Your task to perform on an android device: uninstall "McDonald's" Image 0: 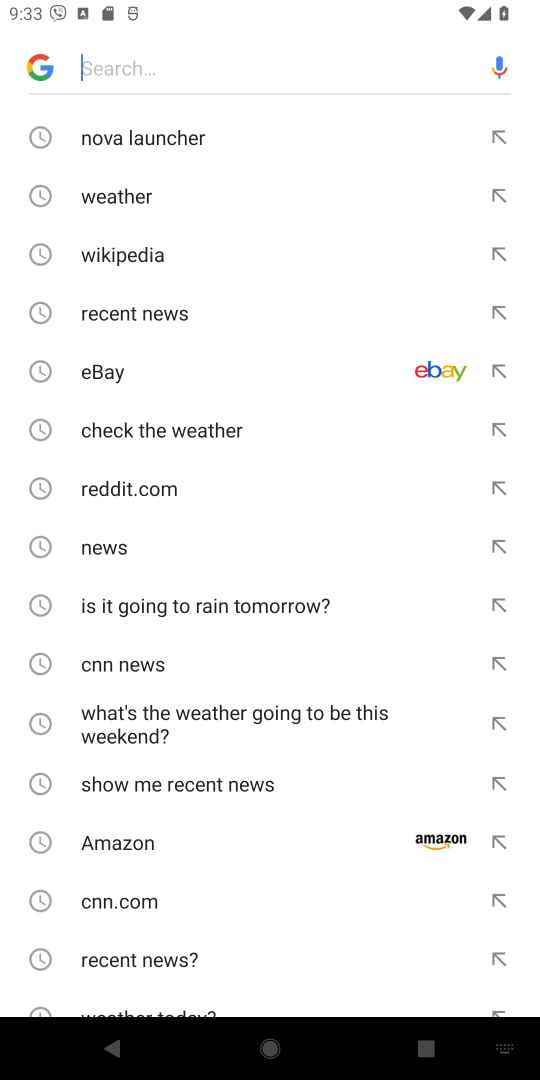
Step 0: press home button
Your task to perform on an android device: uninstall "McDonald's" Image 1: 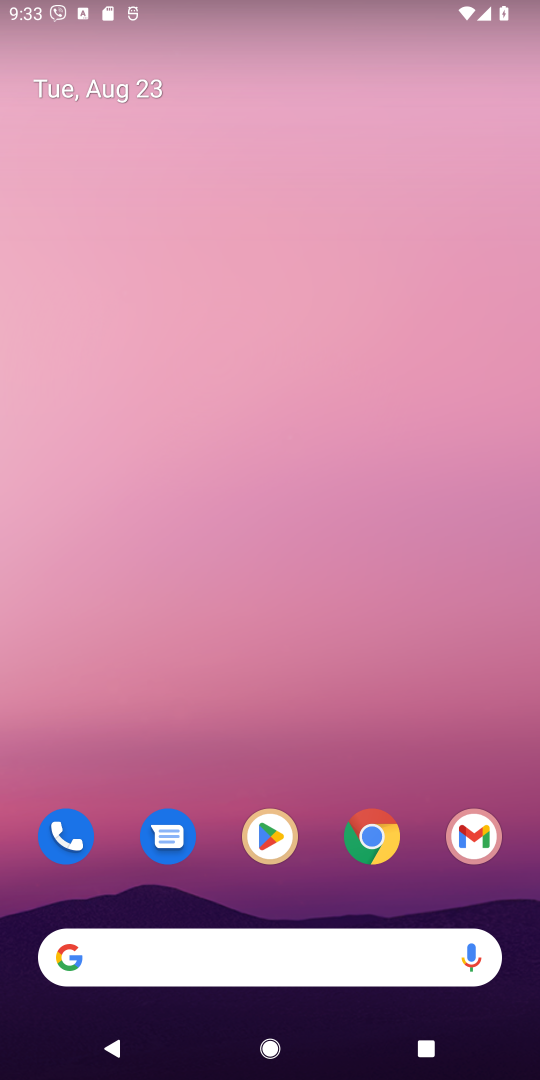
Step 1: click (273, 842)
Your task to perform on an android device: uninstall "McDonald's" Image 2: 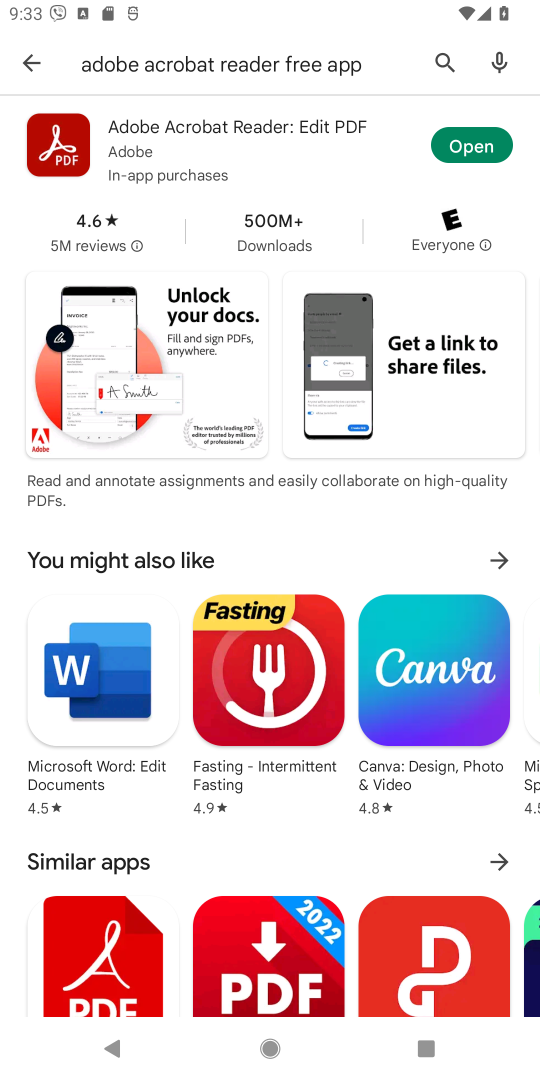
Step 2: click (453, 65)
Your task to perform on an android device: uninstall "McDonald's" Image 3: 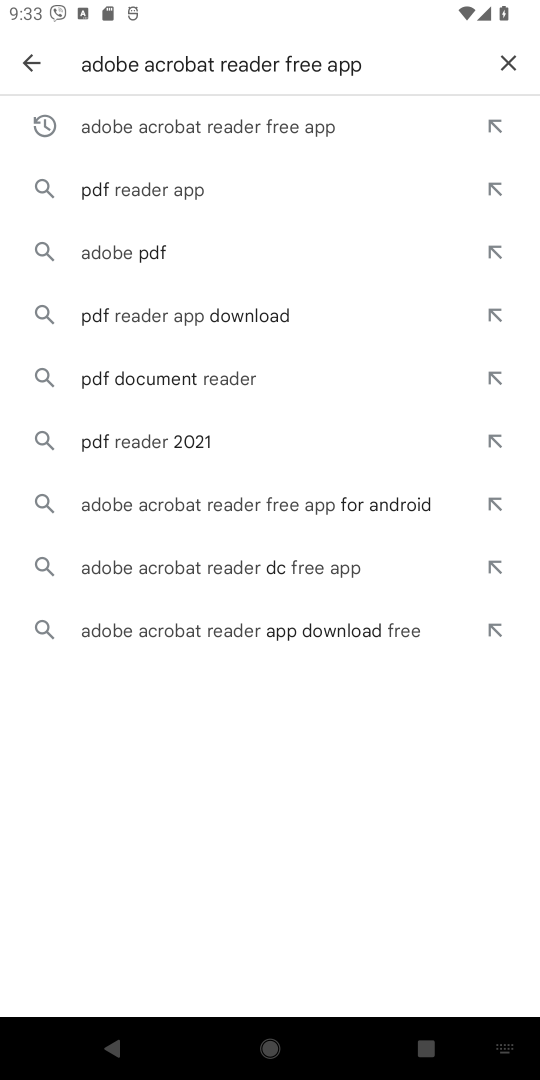
Step 3: click (502, 64)
Your task to perform on an android device: uninstall "McDonald's" Image 4: 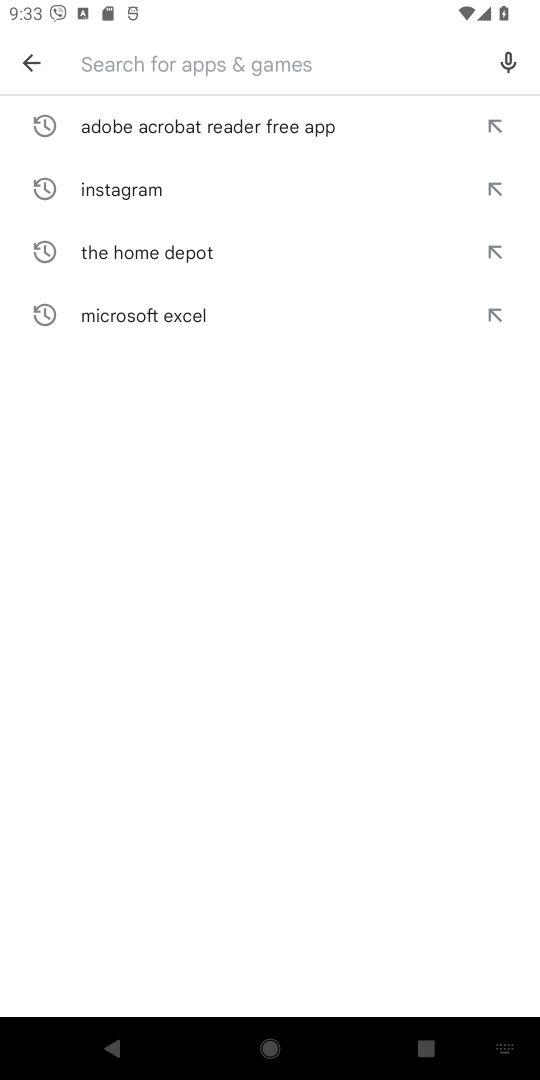
Step 4: type "McDonald's"
Your task to perform on an android device: uninstall "McDonald's" Image 5: 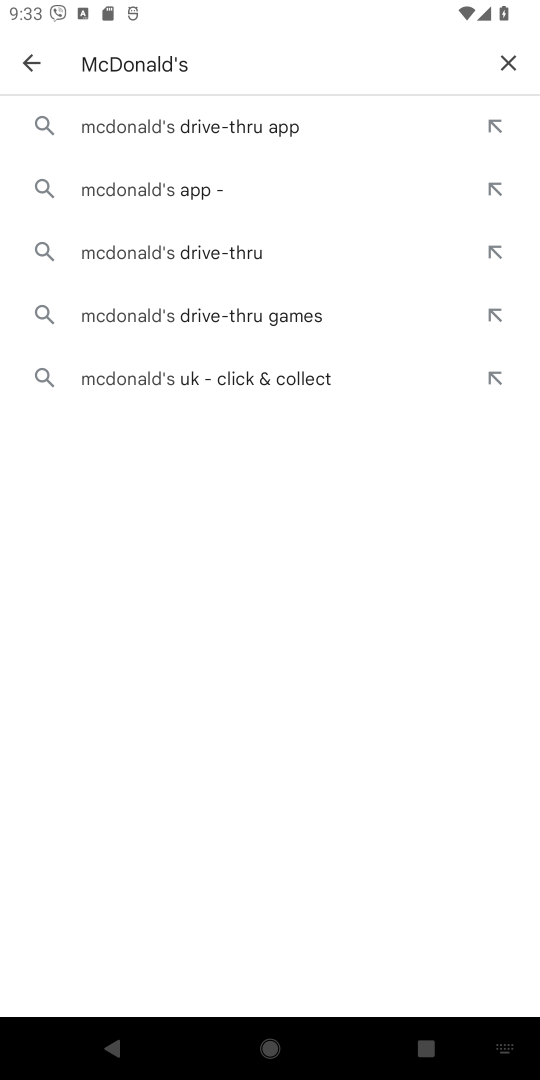
Step 5: click (199, 122)
Your task to perform on an android device: uninstall "McDonald's" Image 6: 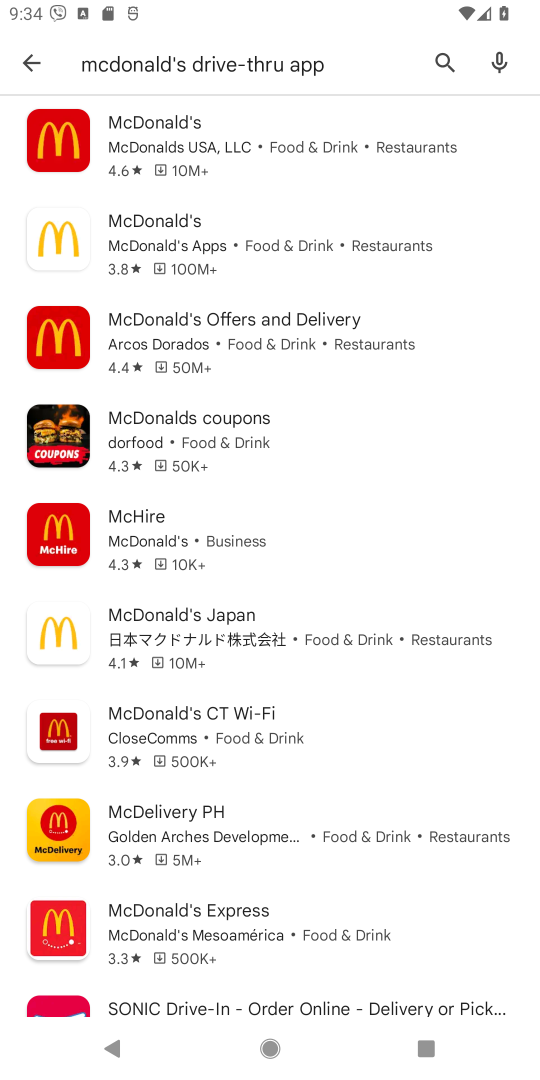
Step 6: click (190, 140)
Your task to perform on an android device: uninstall "McDonald's" Image 7: 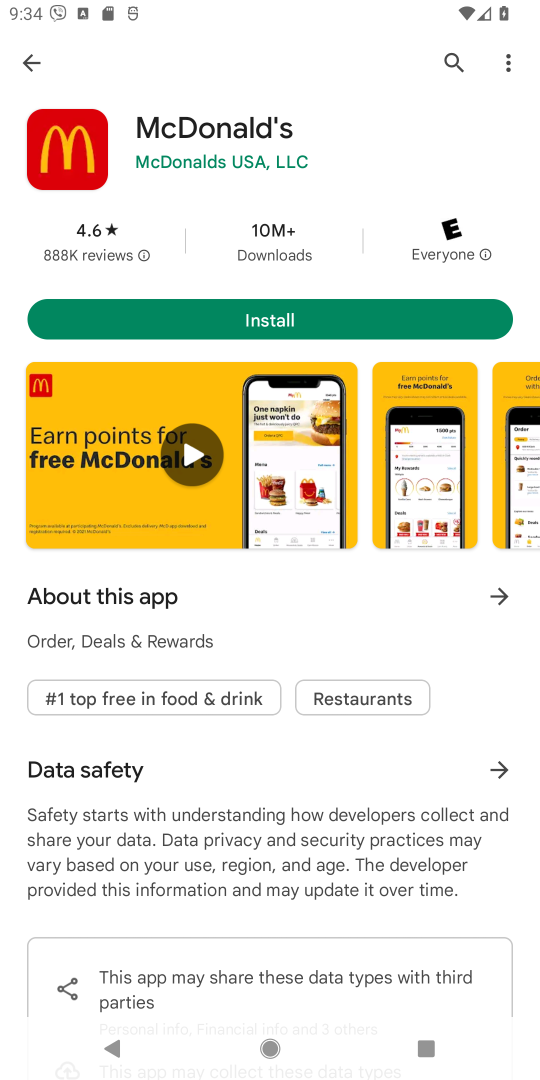
Step 7: task complete